Your task to perform on an android device: Check the weather Image 0: 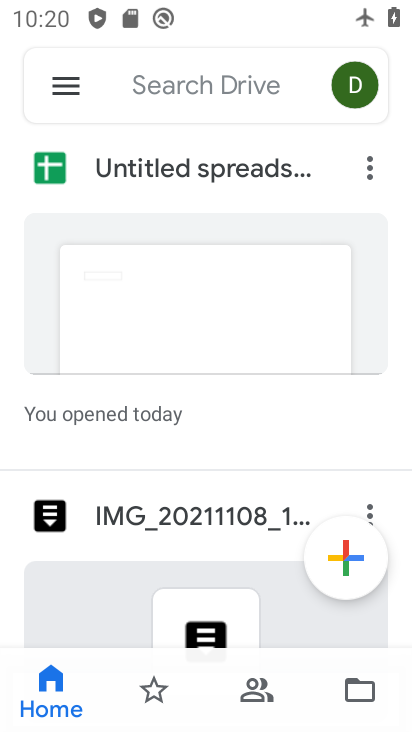
Step 0: press home button
Your task to perform on an android device: Check the weather Image 1: 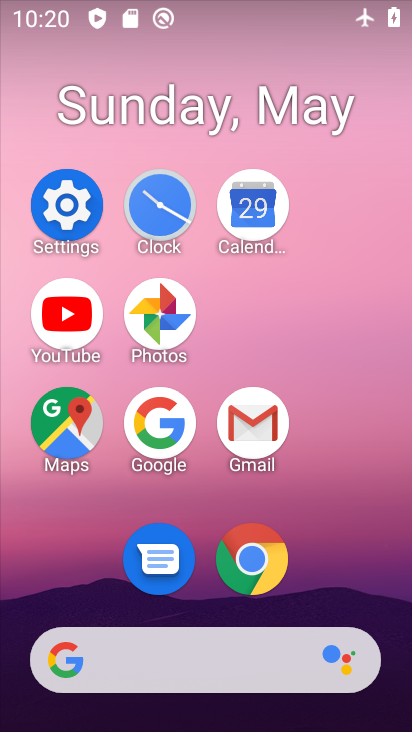
Step 1: click (172, 455)
Your task to perform on an android device: Check the weather Image 2: 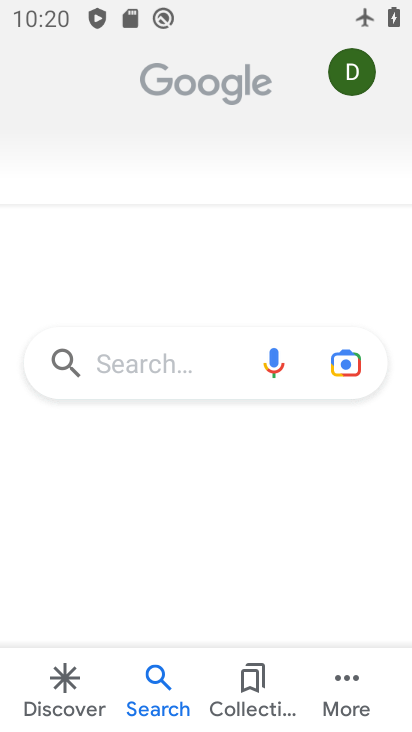
Step 2: click (133, 372)
Your task to perform on an android device: Check the weather Image 3: 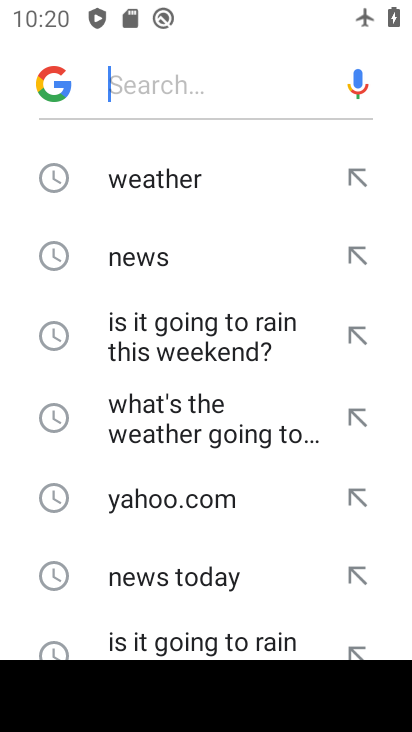
Step 3: click (197, 210)
Your task to perform on an android device: Check the weather Image 4: 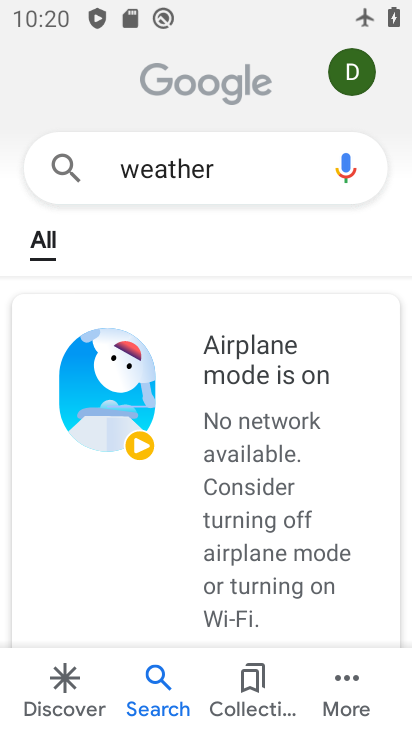
Step 4: task complete